Your task to perform on an android device: search for starred emails in the gmail app Image 0: 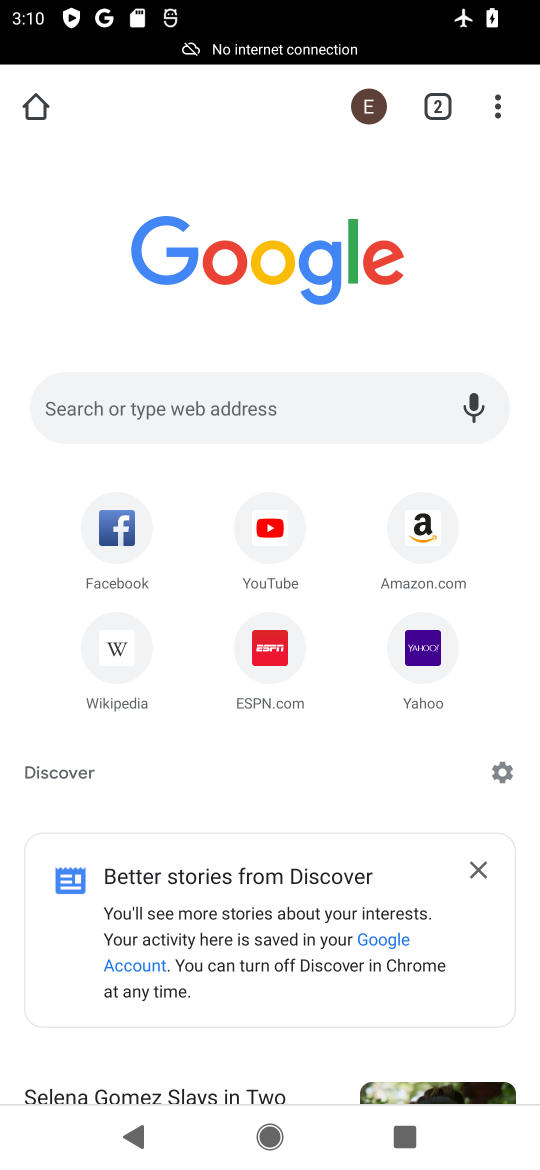
Step 0: press home button
Your task to perform on an android device: search for starred emails in the gmail app Image 1: 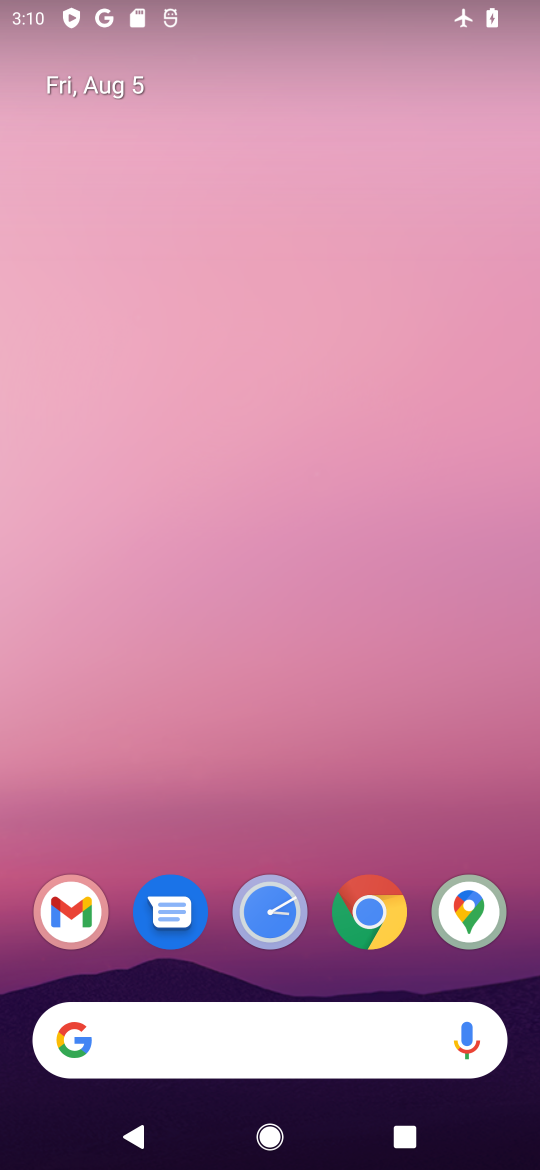
Step 1: click (68, 906)
Your task to perform on an android device: search for starred emails in the gmail app Image 2: 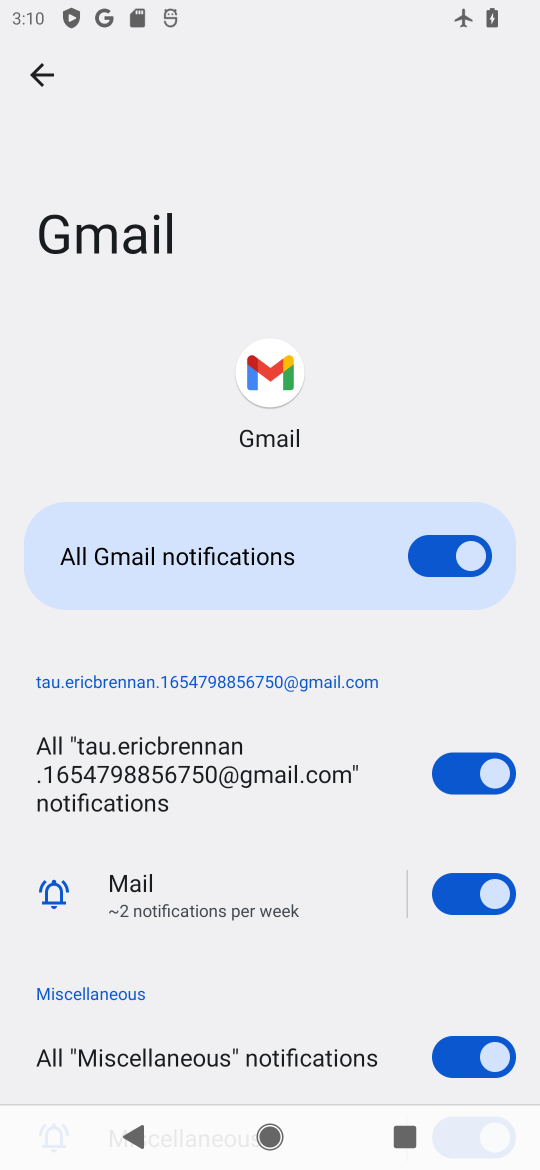
Step 2: click (44, 70)
Your task to perform on an android device: search for starred emails in the gmail app Image 3: 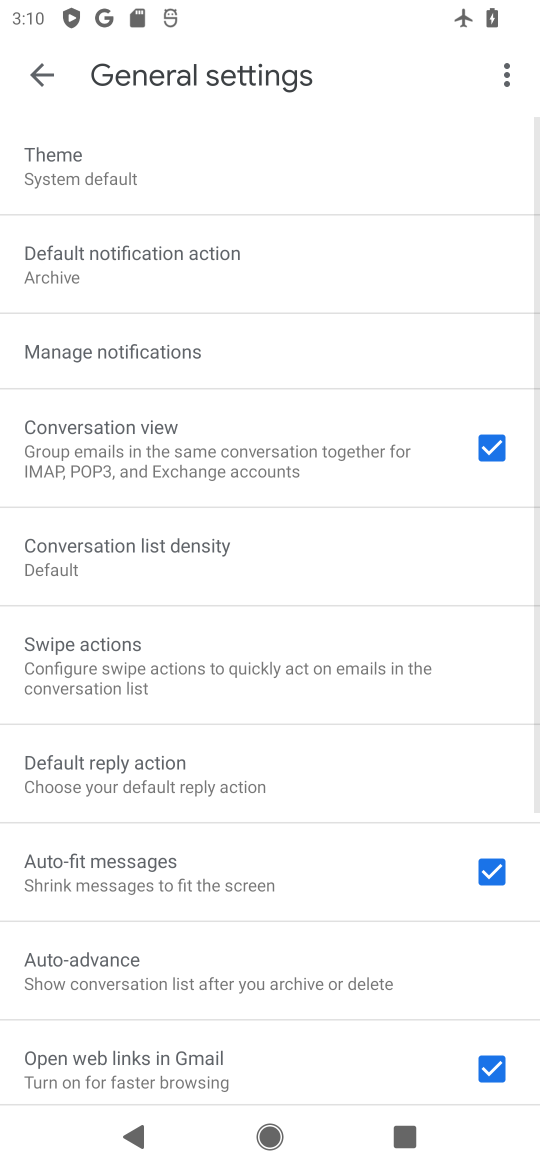
Step 3: click (50, 70)
Your task to perform on an android device: search for starred emails in the gmail app Image 4: 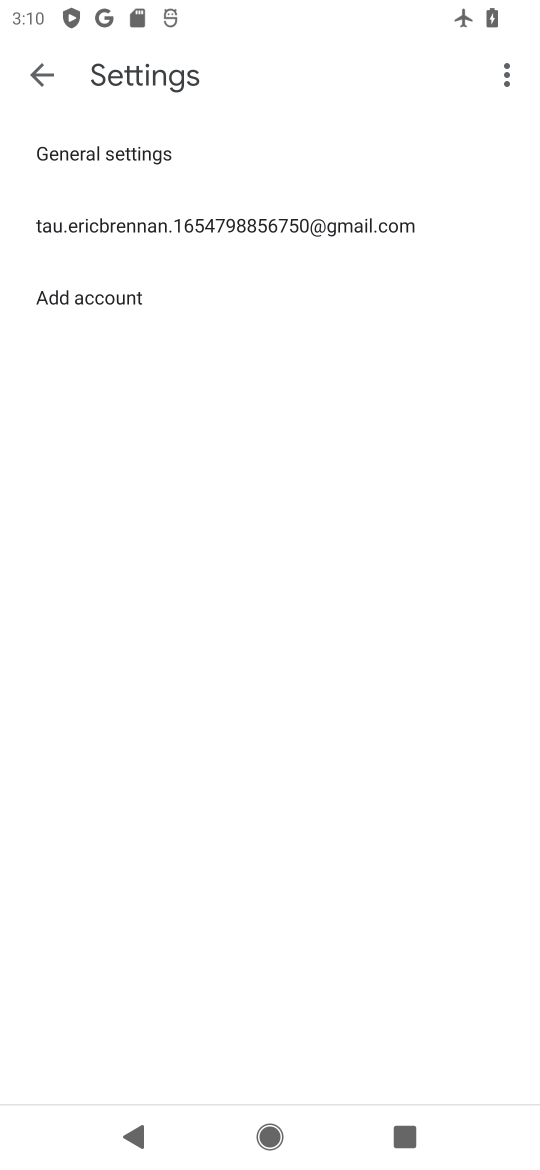
Step 4: click (49, 77)
Your task to perform on an android device: search for starred emails in the gmail app Image 5: 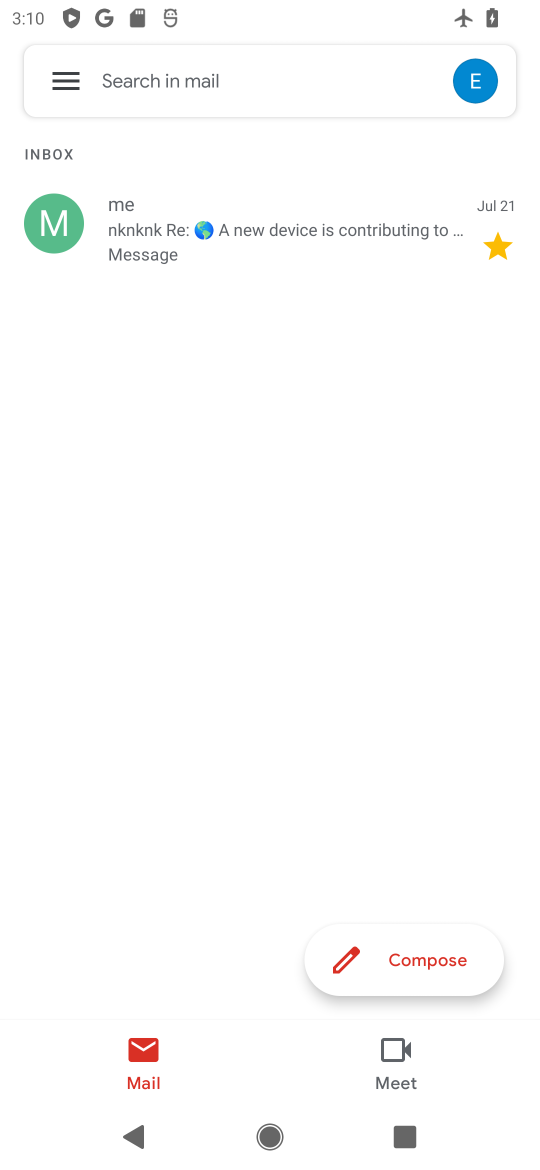
Step 5: click (72, 79)
Your task to perform on an android device: search for starred emails in the gmail app Image 6: 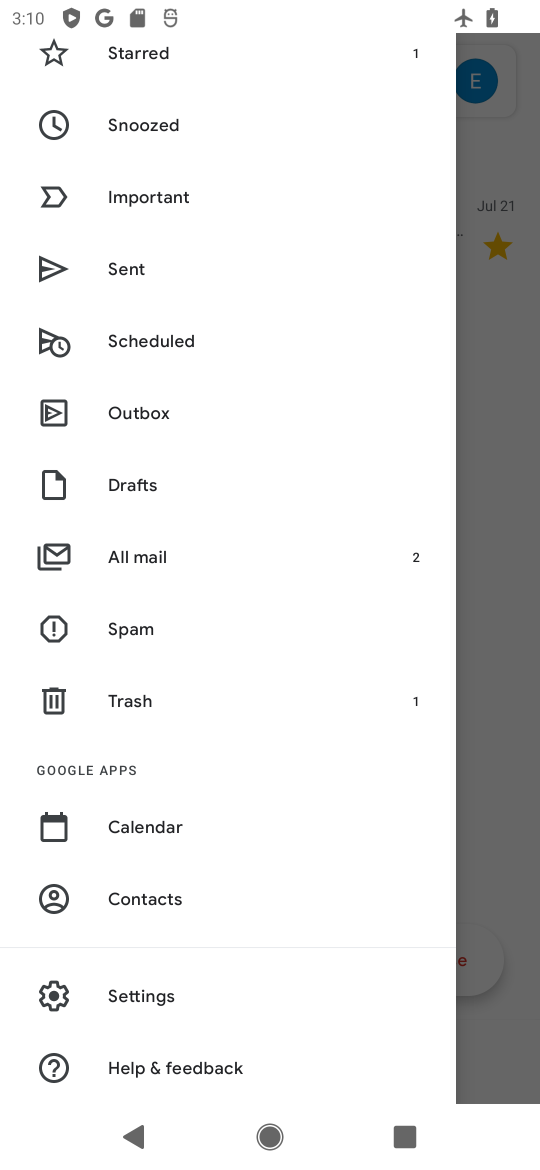
Step 6: drag from (159, 315) to (122, 652)
Your task to perform on an android device: search for starred emails in the gmail app Image 7: 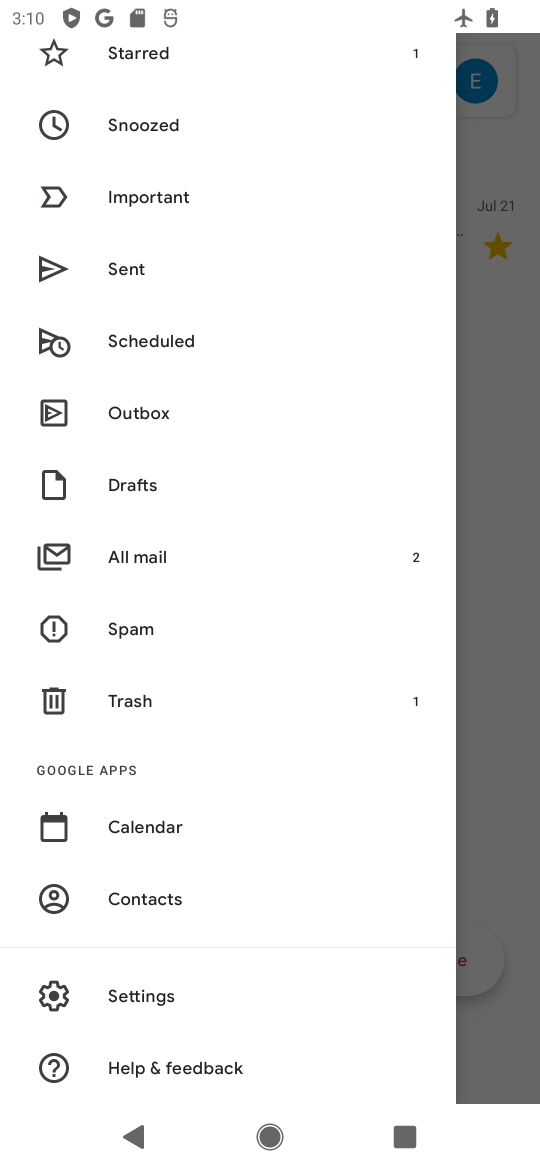
Step 7: click (151, 60)
Your task to perform on an android device: search for starred emails in the gmail app Image 8: 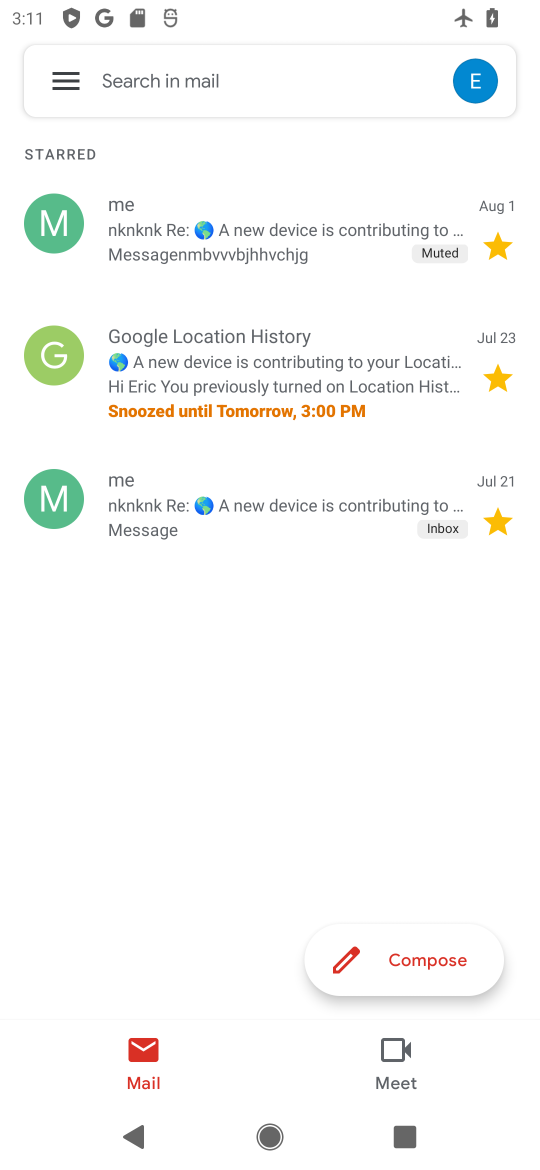
Step 8: task complete